Your task to perform on an android device: turn off location history Image 0: 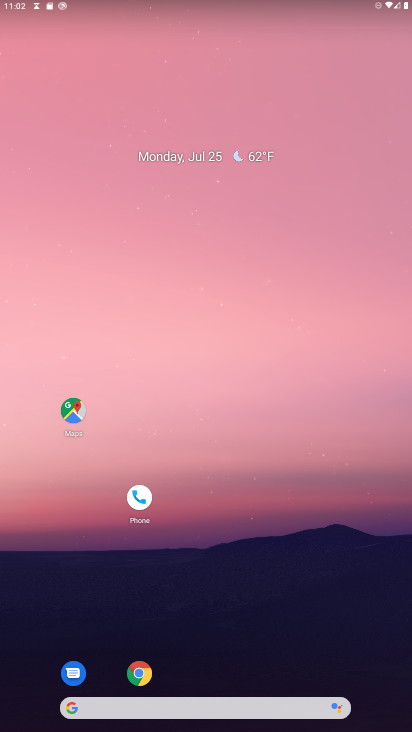
Step 0: press home button
Your task to perform on an android device: turn off location history Image 1: 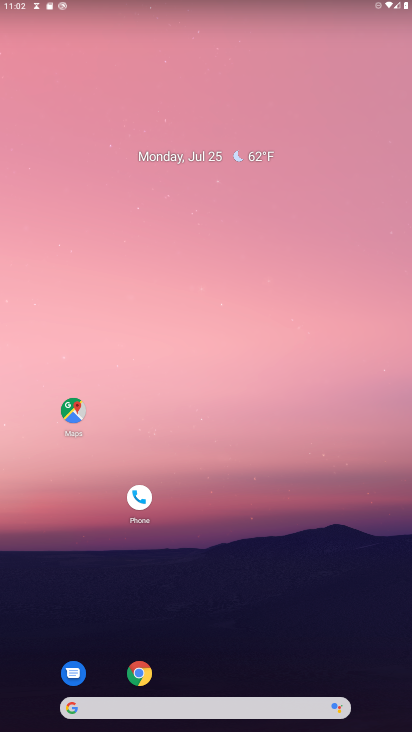
Step 1: drag from (317, 644) to (284, 139)
Your task to perform on an android device: turn off location history Image 2: 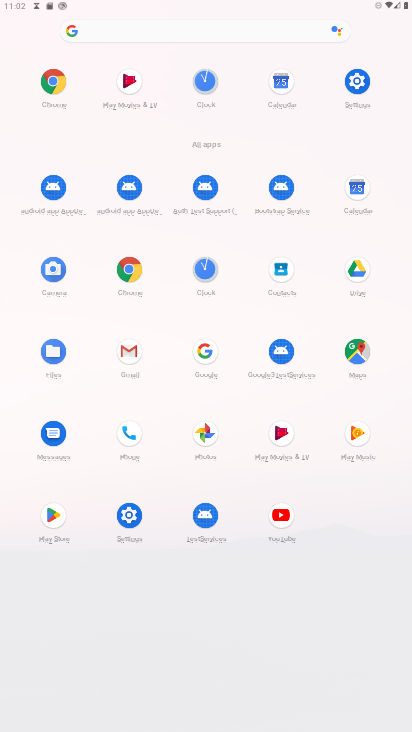
Step 2: click (366, 84)
Your task to perform on an android device: turn off location history Image 3: 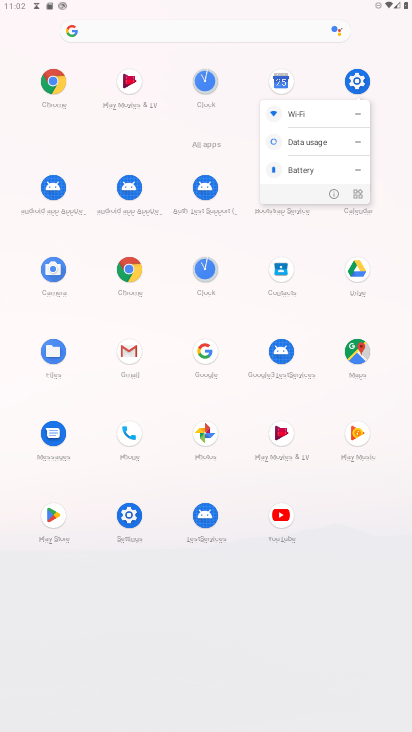
Step 3: click (358, 77)
Your task to perform on an android device: turn off location history Image 4: 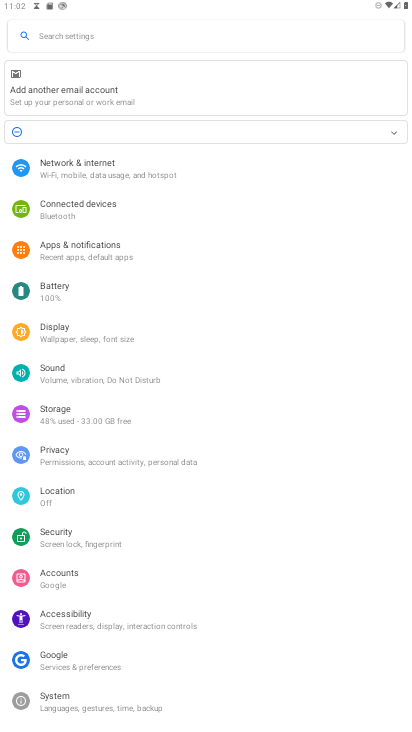
Step 4: click (53, 494)
Your task to perform on an android device: turn off location history Image 5: 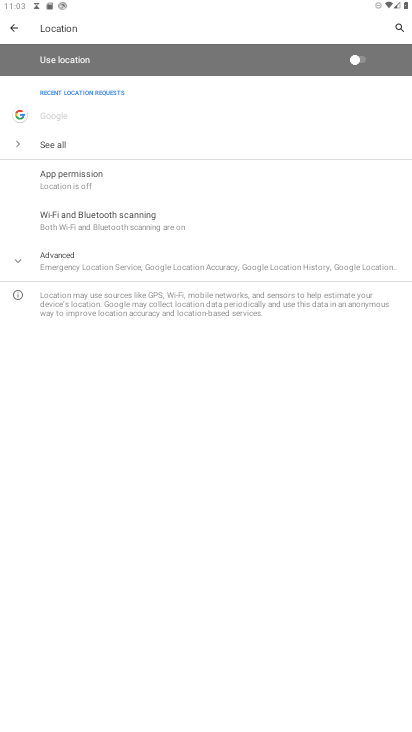
Step 5: task complete